Your task to perform on an android device: change your default location settings in chrome Image 0: 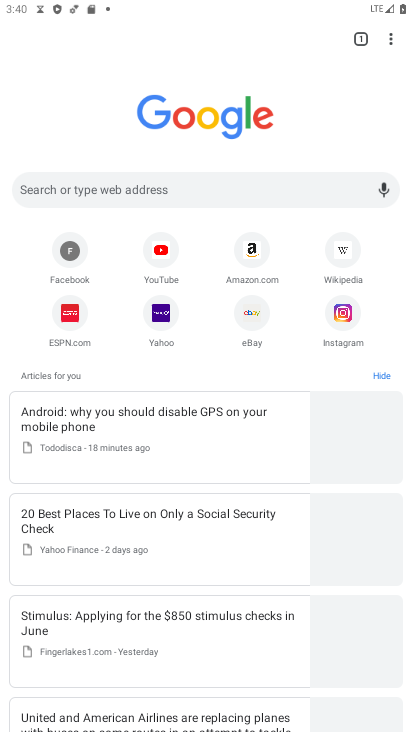
Step 0: press home button
Your task to perform on an android device: change your default location settings in chrome Image 1: 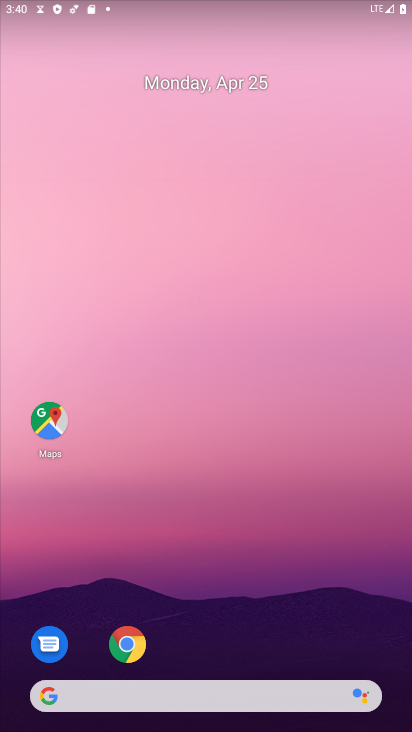
Step 1: drag from (185, 661) to (148, 10)
Your task to perform on an android device: change your default location settings in chrome Image 2: 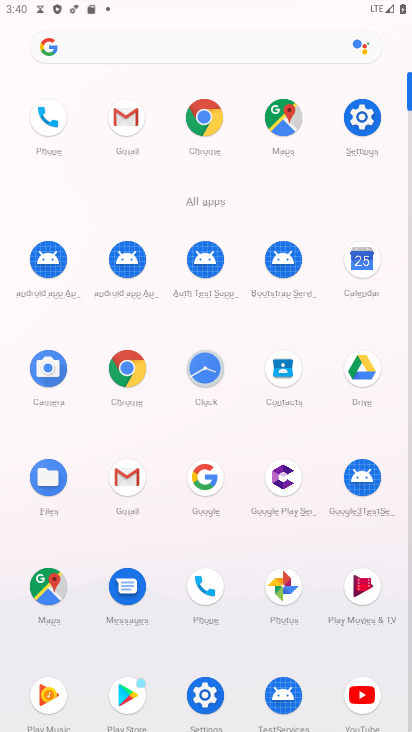
Step 2: click (127, 365)
Your task to perform on an android device: change your default location settings in chrome Image 3: 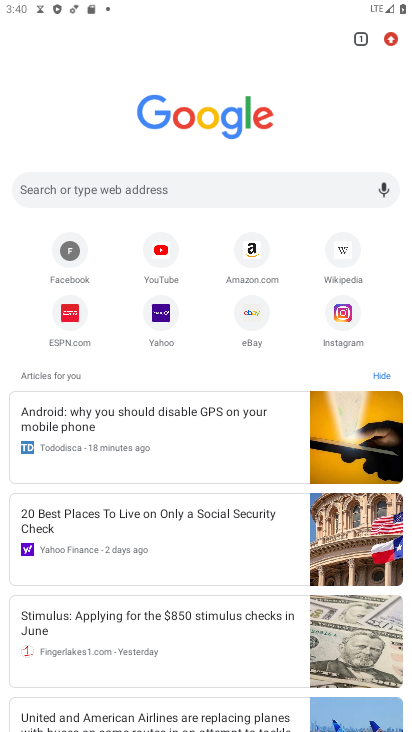
Step 3: click (387, 41)
Your task to perform on an android device: change your default location settings in chrome Image 4: 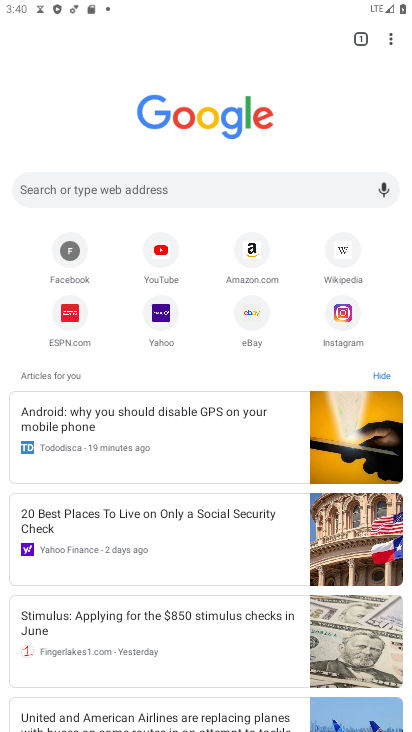
Step 4: click (391, 33)
Your task to perform on an android device: change your default location settings in chrome Image 5: 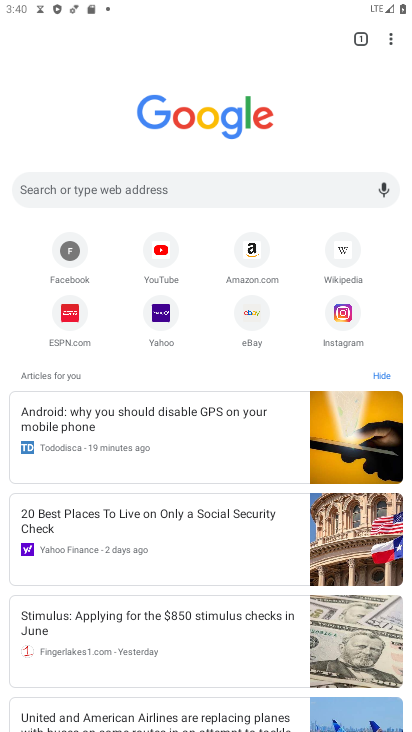
Step 5: click (391, 33)
Your task to perform on an android device: change your default location settings in chrome Image 6: 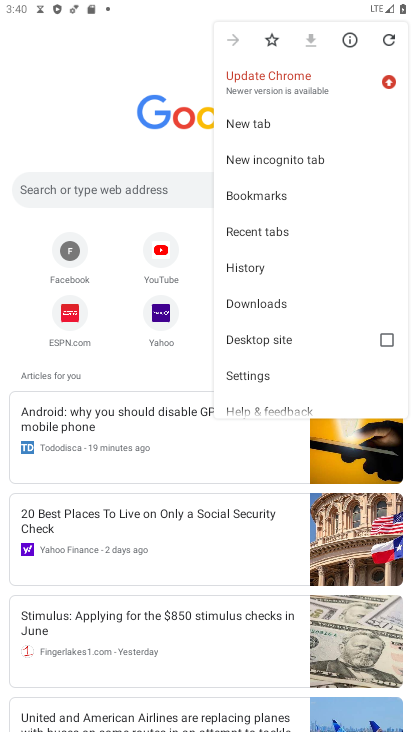
Step 6: click (271, 364)
Your task to perform on an android device: change your default location settings in chrome Image 7: 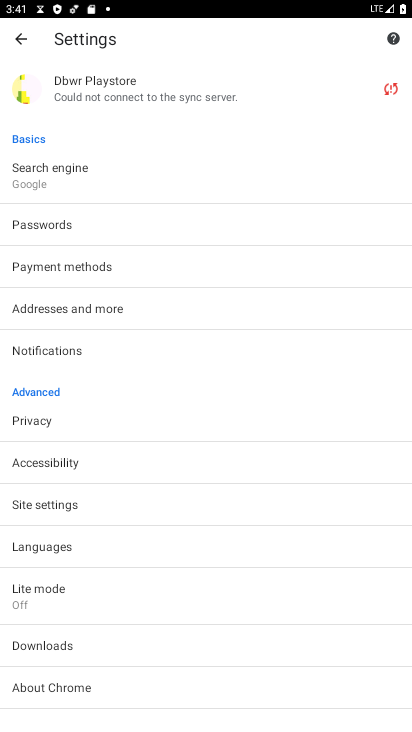
Step 7: click (100, 497)
Your task to perform on an android device: change your default location settings in chrome Image 8: 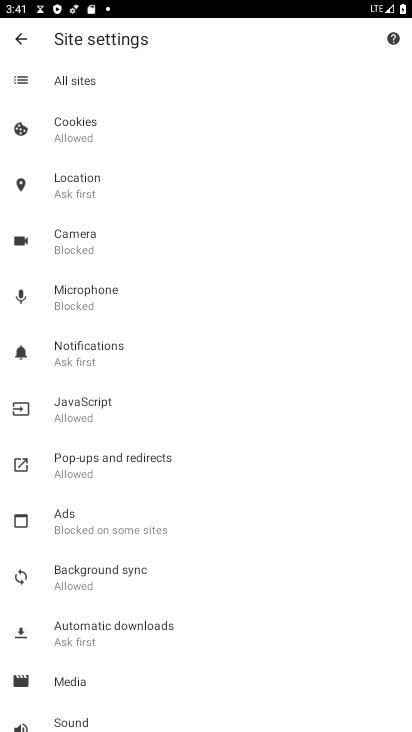
Step 8: click (107, 177)
Your task to perform on an android device: change your default location settings in chrome Image 9: 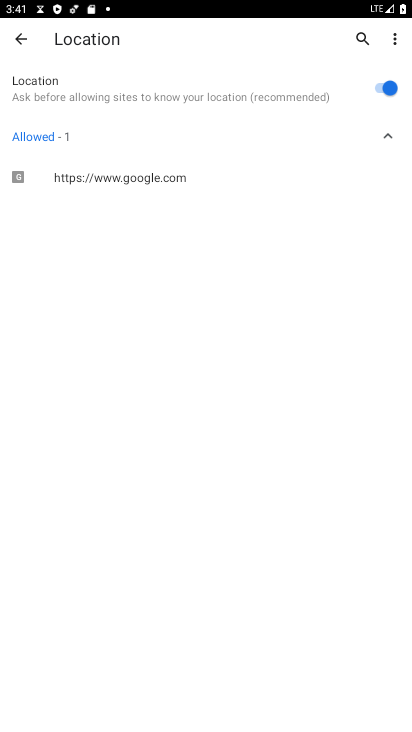
Step 9: click (384, 87)
Your task to perform on an android device: change your default location settings in chrome Image 10: 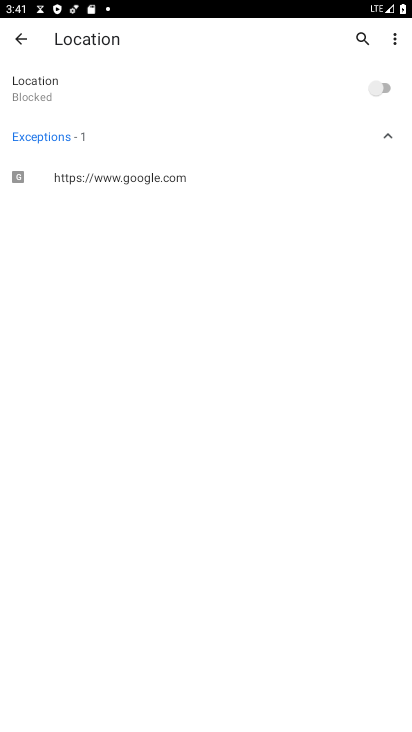
Step 10: task complete